Your task to perform on an android device: remove spam from my inbox in the gmail app Image 0: 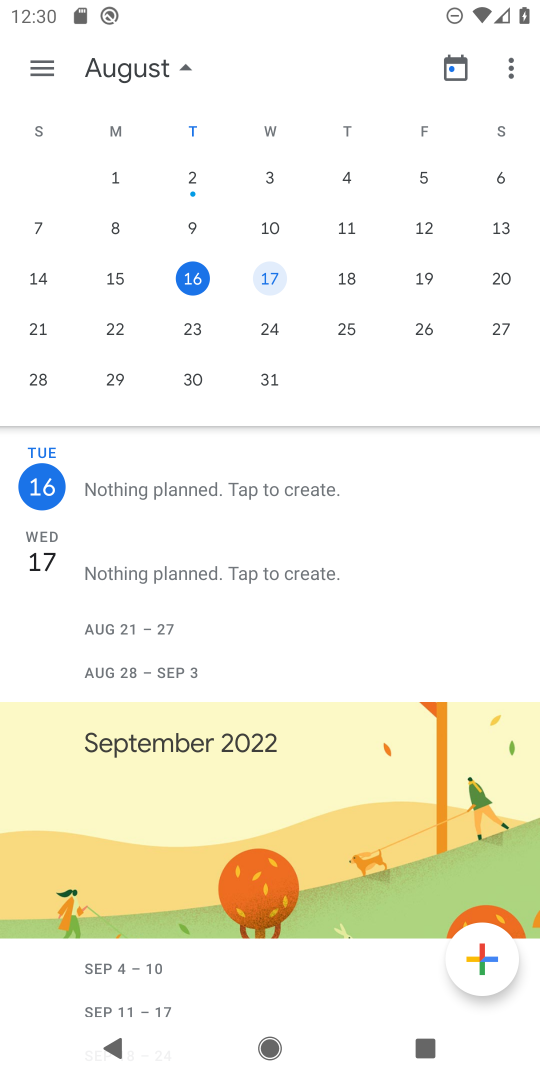
Step 0: press back button
Your task to perform on an android device: remove spam from my inbox in the gmail app Image 1: 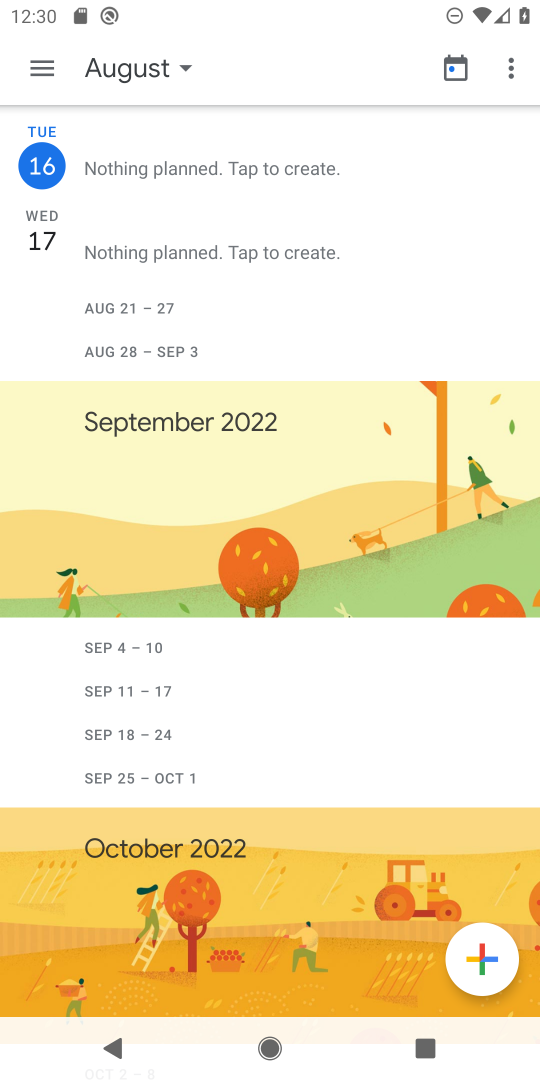
Step 1: press back button
Your task to perform on an android device: remove spam from my inbox in the gmail app Image 2: 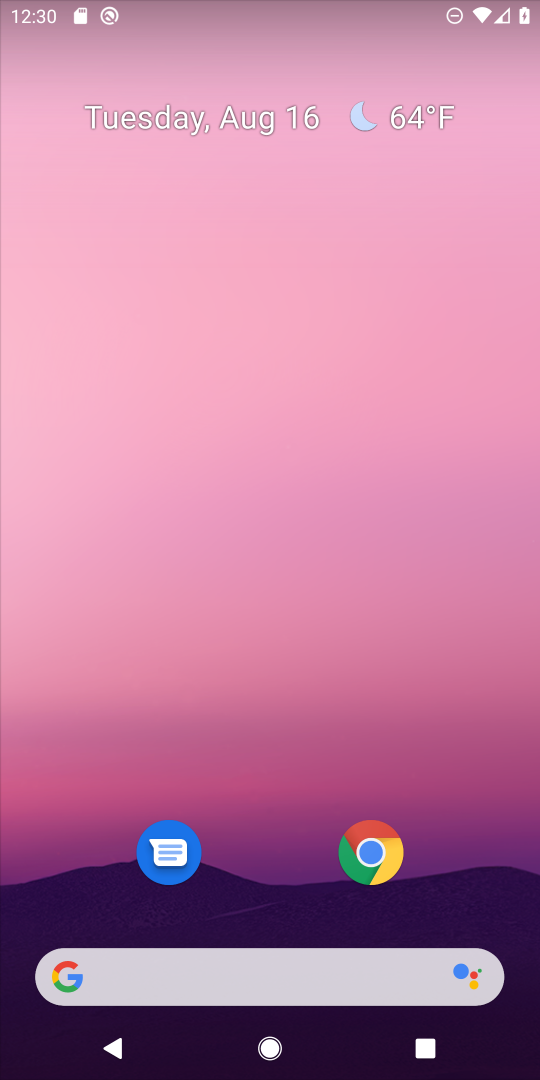
Step 2: drag from (219, 920) to (288, 249)
Your task to perform on an android device: remove spam from my inbox in the gmail app Image 3: 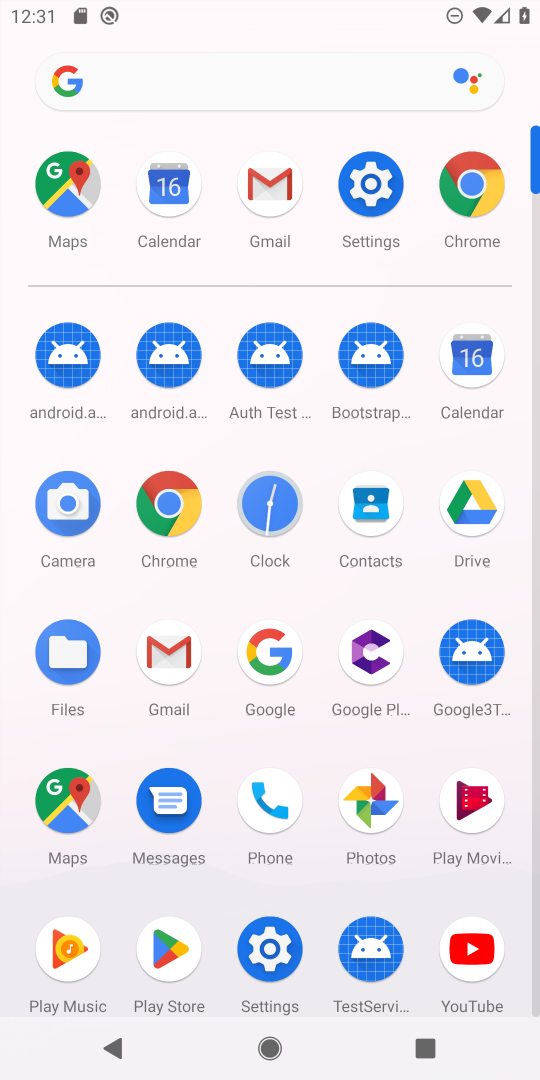
Step 3: click (272, 173)
Your task to perform on an android device: remove spam from my inbox in the gmail app Image 4: 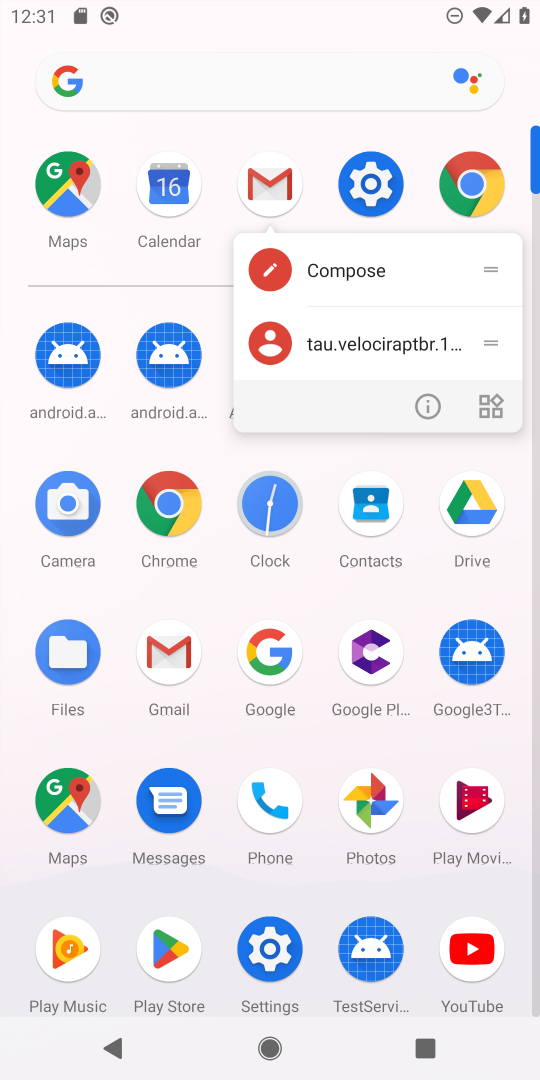
Step 4: click (276, 172)
Your task to perform on an android device: remove spam from my inbox in the gmail app Image 5: 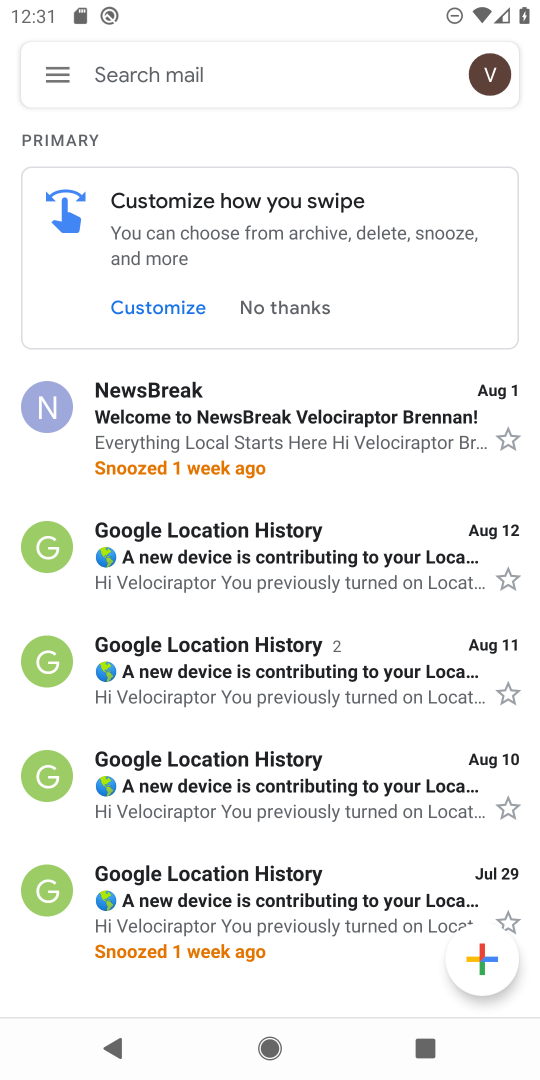
Step 5: click (53, 73)
Your task to perform on an android device: remove spam from my inbox in the gmail app Image 6: 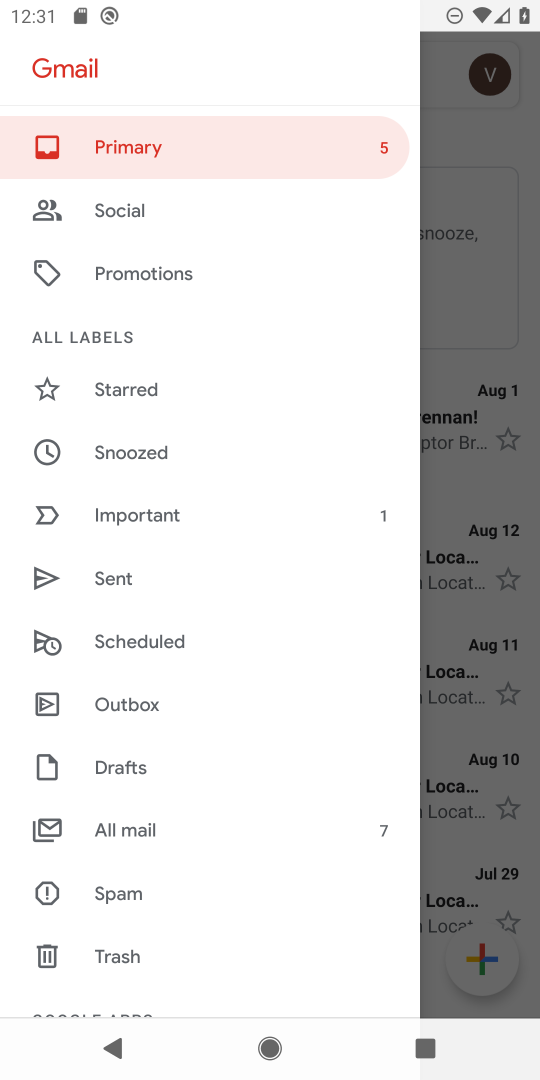
Step 6: click (129, 889)
Your task to perform on an android device: remove spam from my inbox in the gmail app Image 7: 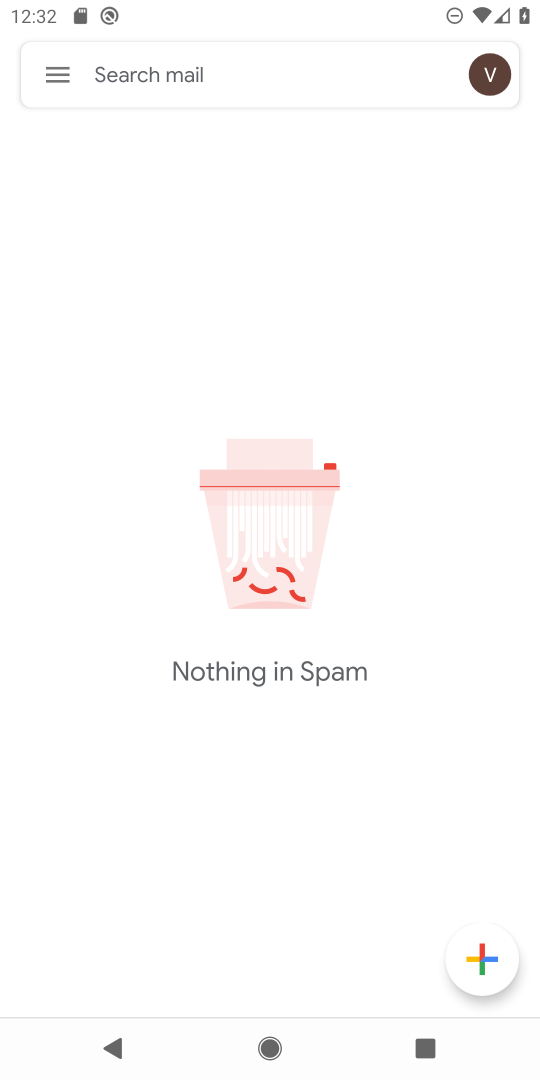
Step 7: task complete